Your task to perform on an android device: empty trash in the gmail app Image 0: 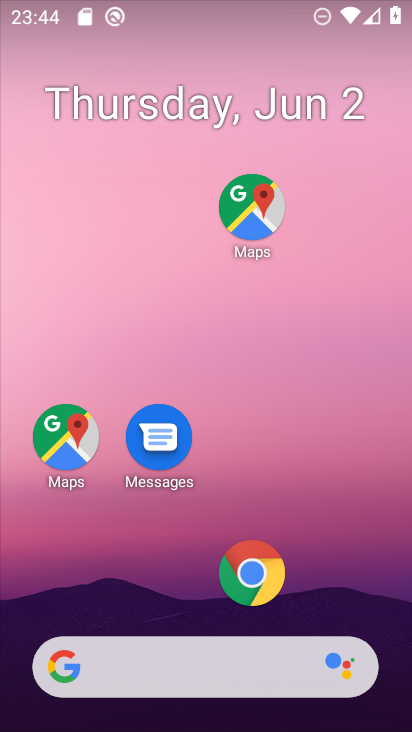
Step 0: drag from (347, 555) to (329, 238)
Your task to perform on an android device: empty trash in the gmail app Image 1: 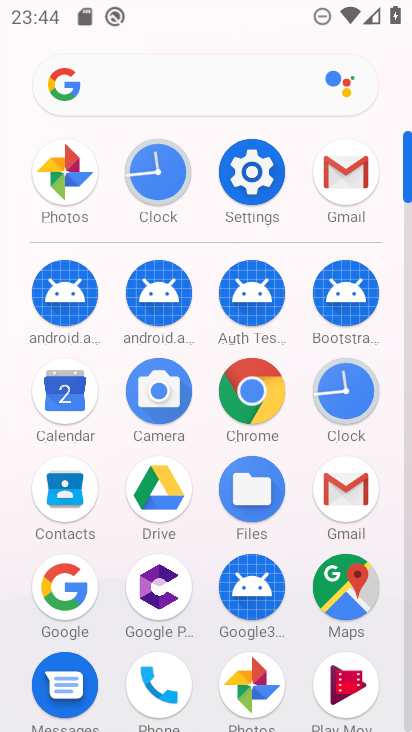
Step 1: click (347, 176)
Your task to perform on an android device: empty trash in the gmail app Image 2: 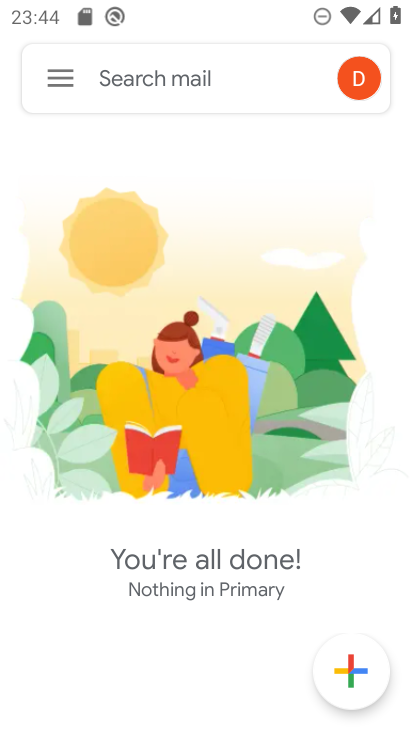
Step 2: click (62, 65)
Your task to perform on an android device: empty trash in the gmail app Image 3: 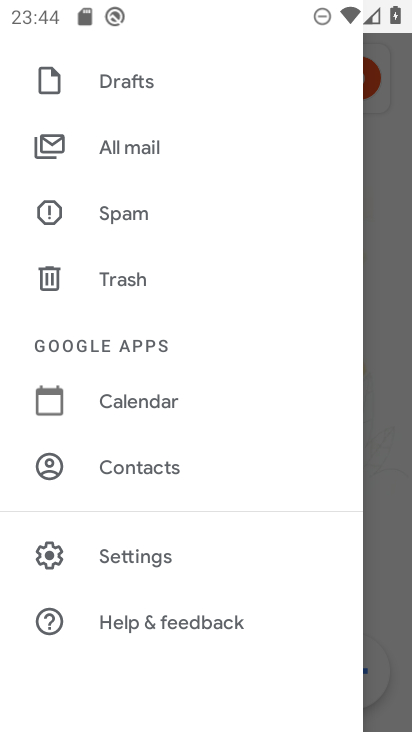
Step 3: click (131, 275)
Your task to perform on an android device: empty trash in the gmail app Image 4: 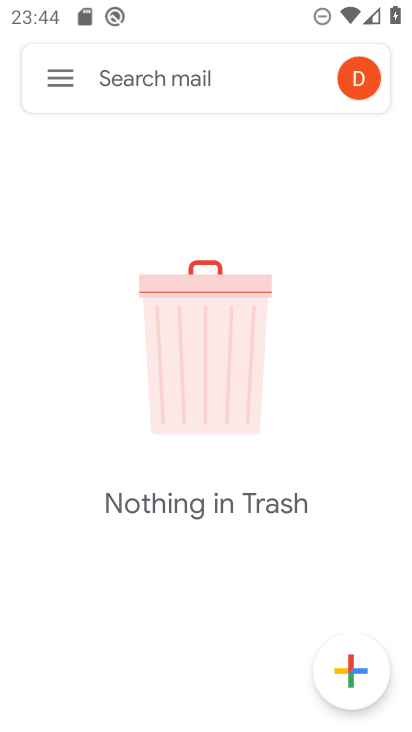
Step 4: task complete